Your task to perform on an android device: Search for "acer nitro" on bestbuy, select the first entry, and add it to the cart. Image 0: 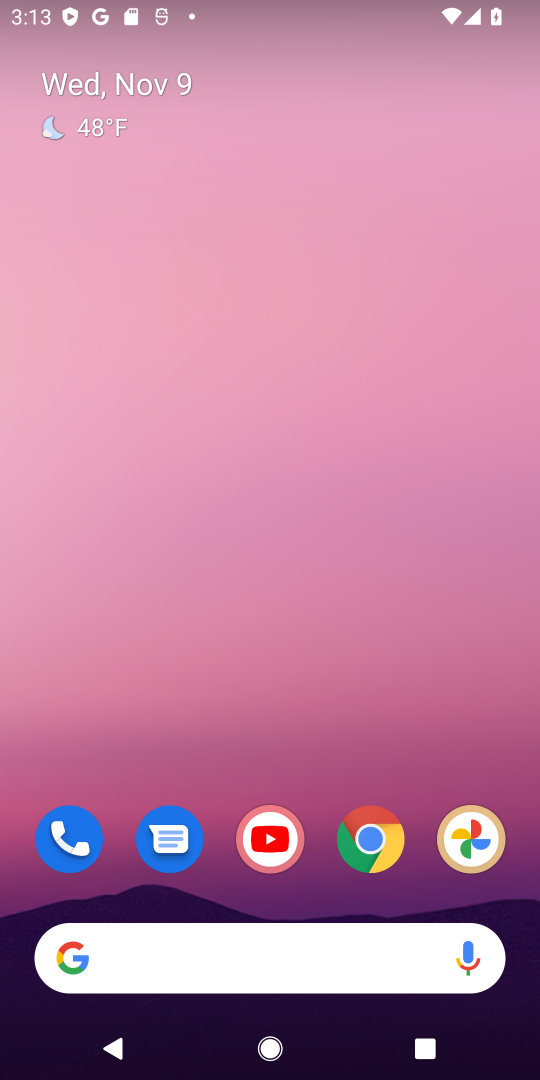
Step 0: drag from (218, 901) to (281, 83)
Your task to perform on an android device: Search for "acer nitro" on bestbuy, select the first entry, and add it to the cart. Image 1: 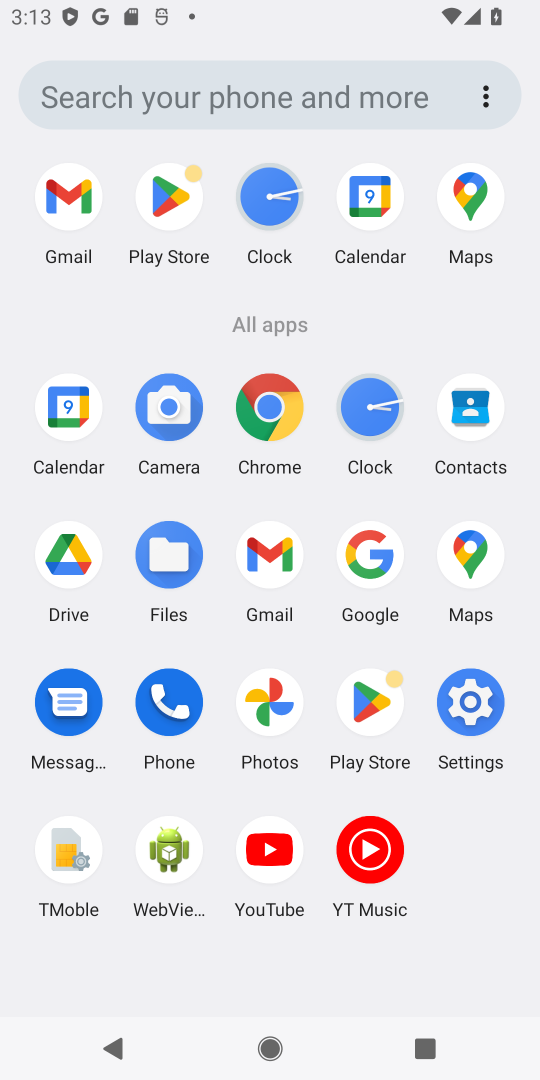
Step 1: click (269, 404)
Your task to perform on an android device: Search for "acer nitro" on bestbuy, select the first entry, and add it to the cart. Image 2: 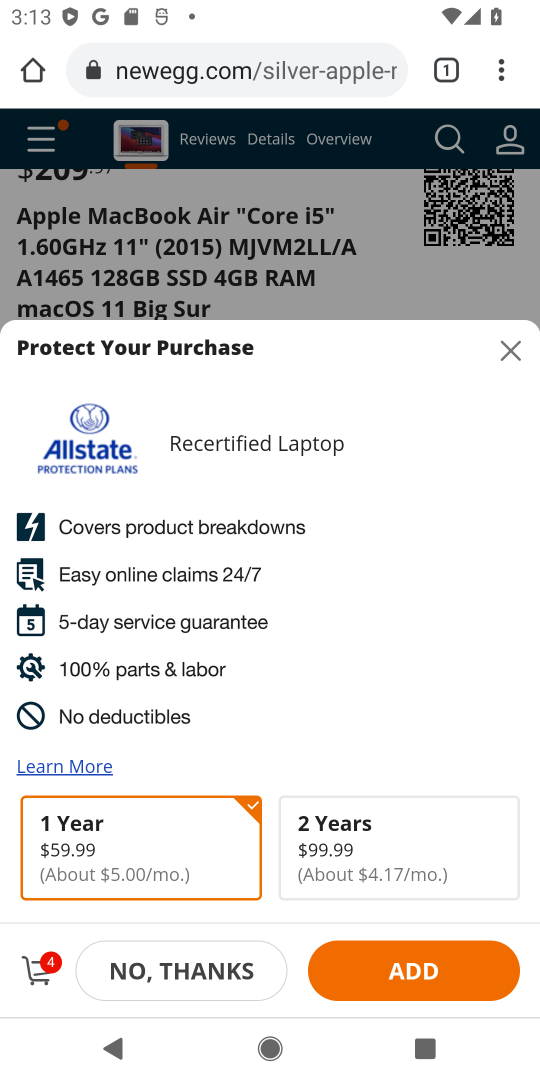
Step 2: click (331, 76)
Your task to perform on an android device: Search for "acer nitro" on bestbuy, select the first entry, and add it to the cart. Image 3: 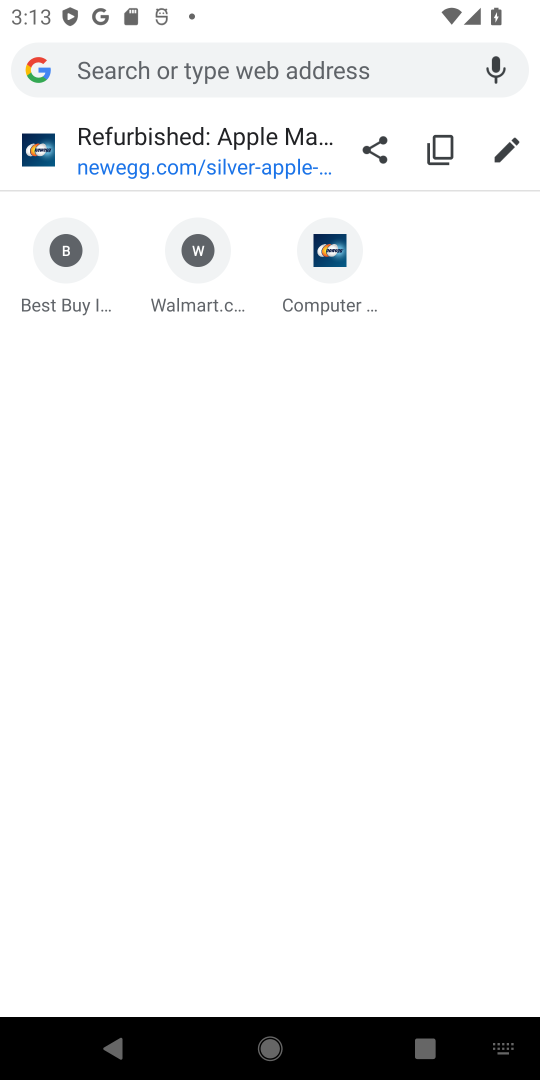
Step 3: type "bestbuy.com"
Your task to perform on an android device: Search for "acer nitro" on bestbuy, select the first entry, and add it to the cart. Image 4: 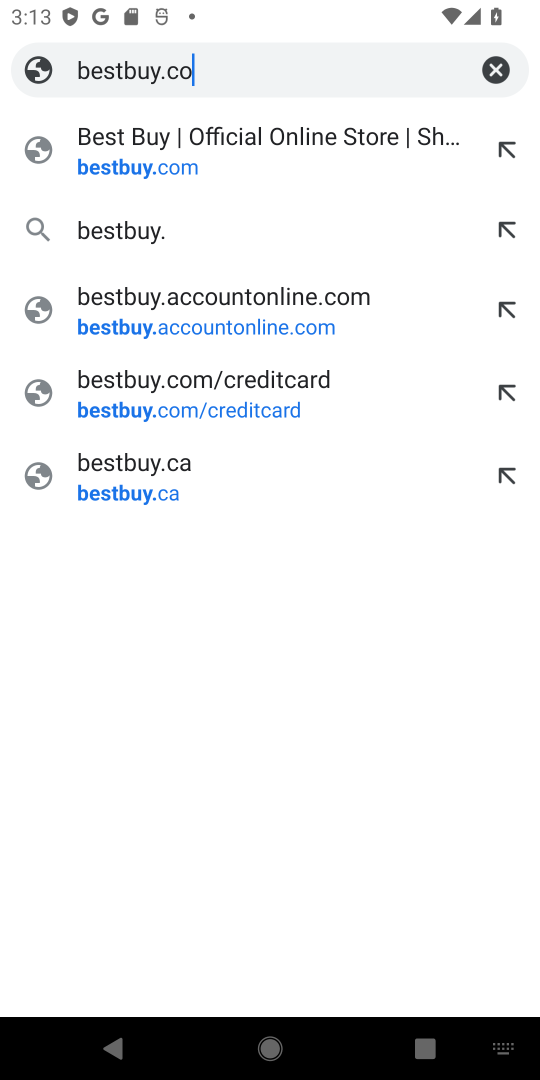
Step 4: press enter
Your task to perform on an android device: Search for "acer nitro" on bestbuy, select the first entry, and add it to the cart. Image 5: 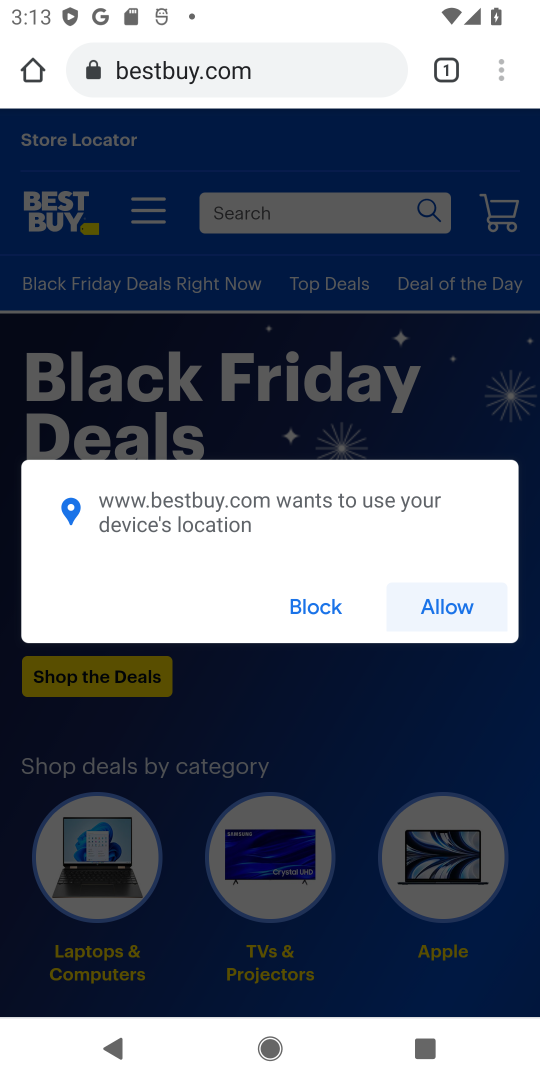
Step 5: click (315, 598)
Your task to perform on an android device: Search for "acer nitro" on bestbuy, select the first entry, and add it to the cart. Image 6: 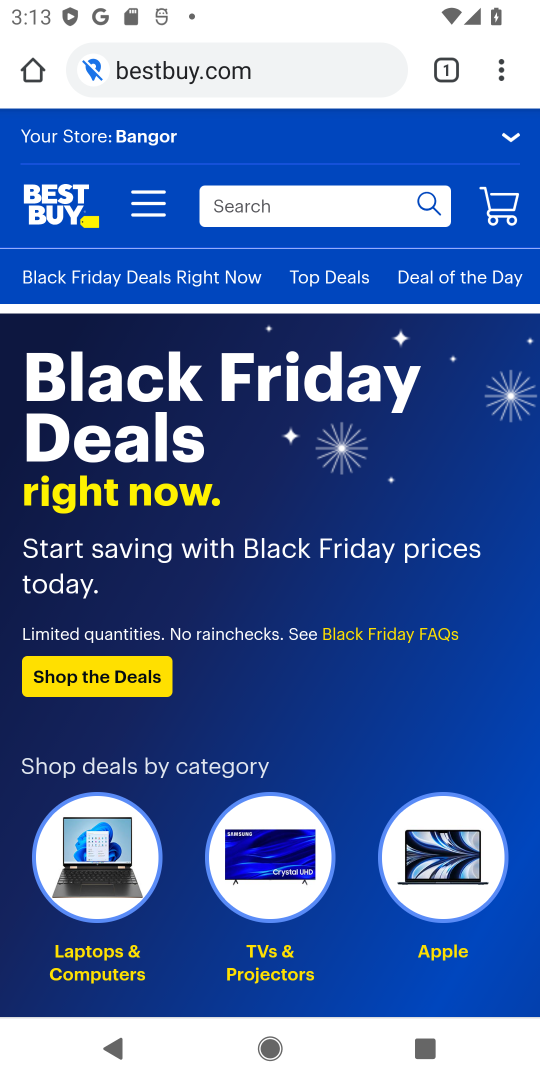
Step 6: click (335, 214)
Your task to perform on an android device: Search for "acer nitro" on bestbuy, select the first entry, and add it to the cart. Image 7: 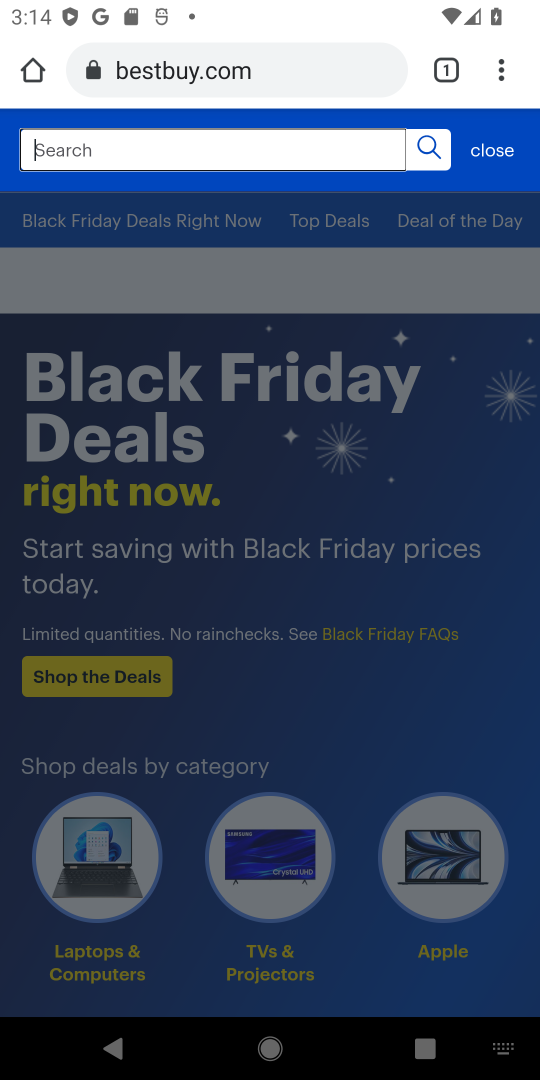
Step 7: type "acer nitro"
Your task to perform on an android device: Search for "acer nitro" on bestbuy, select the first entry, and add it to the cart. Image 8: 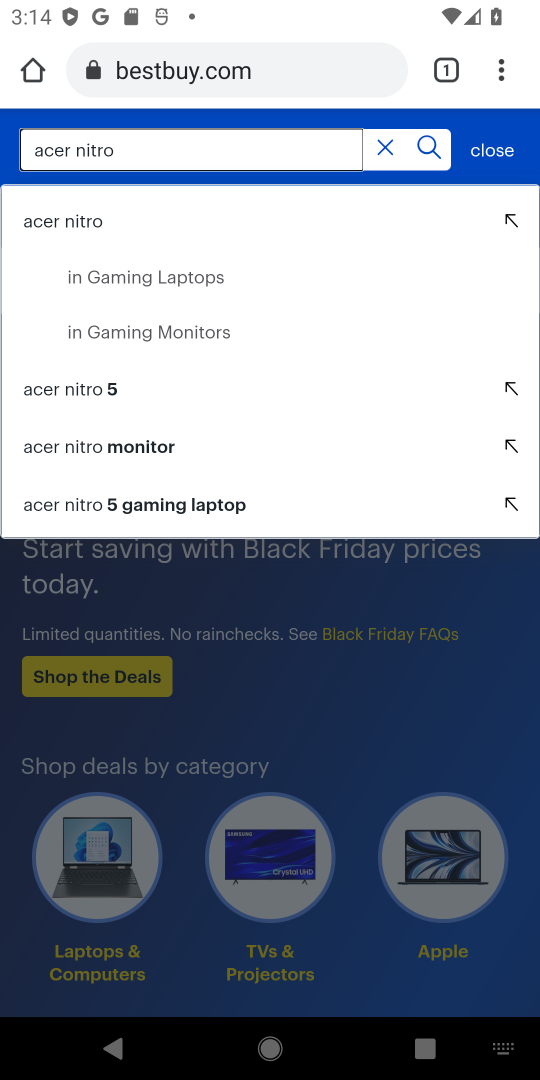
Step 8: press enter
Your task to perform on an android device: Search for "acer nitro" on bestbuy, select the first entry, and add it to the cart. Image 9: 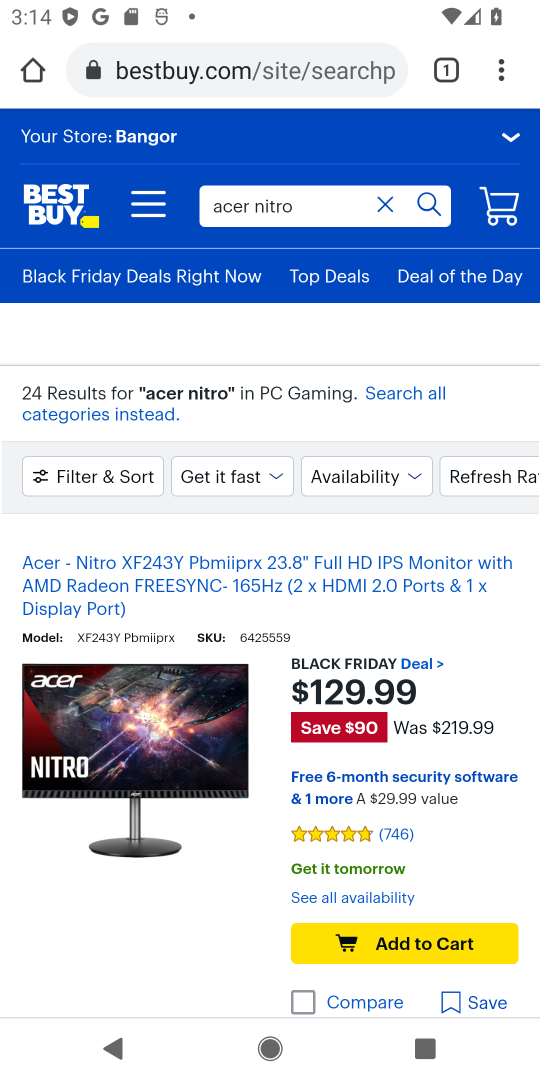
Step 9: click (426, 941)
Your task to perform on an android device: Search for "acer nitro" on bestbuy, select the first entry, and add it to the cart. Image 10: 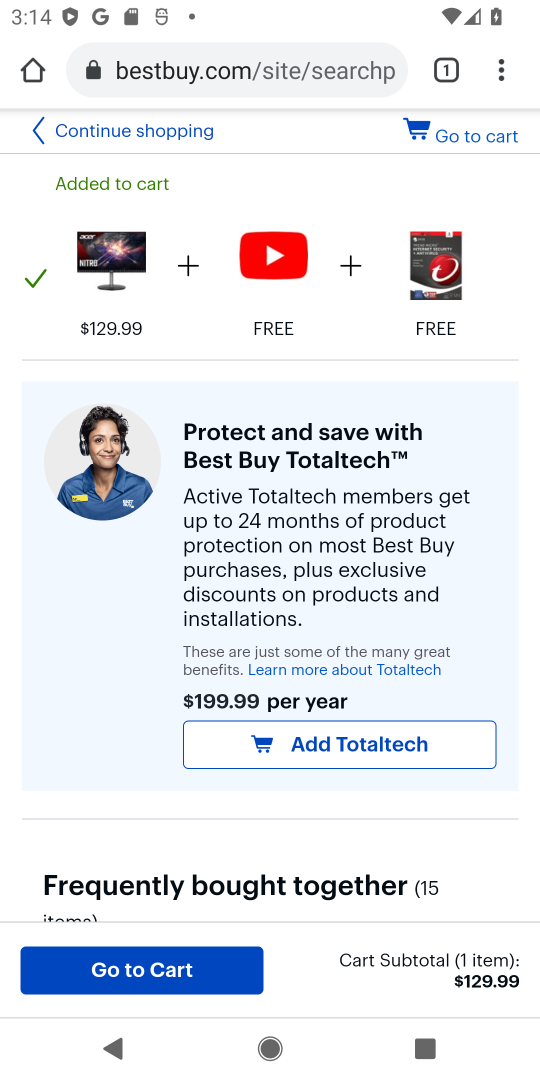
Step 10: click (155, 969)
Your task to perform on an android device: Search for "acer nitro" on bestbuy, select the first entry, and add it to the cart. Image 11: 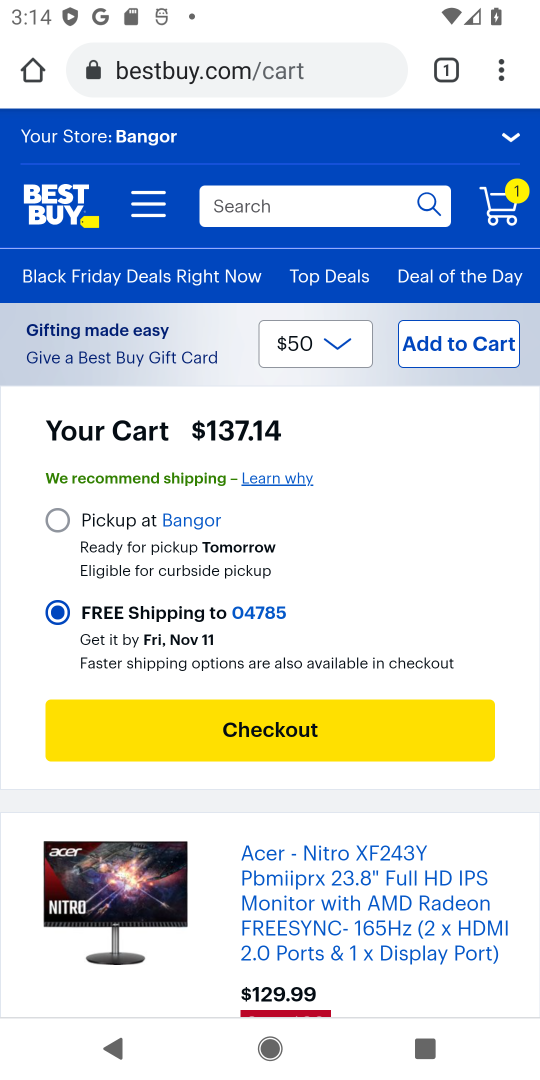
Step 11: task complete